Your task to perform on an android device: View the shopping cart on walmart.com. Add "razer huntsman" to the cart on walmart.com, then select checkout. Image 0: 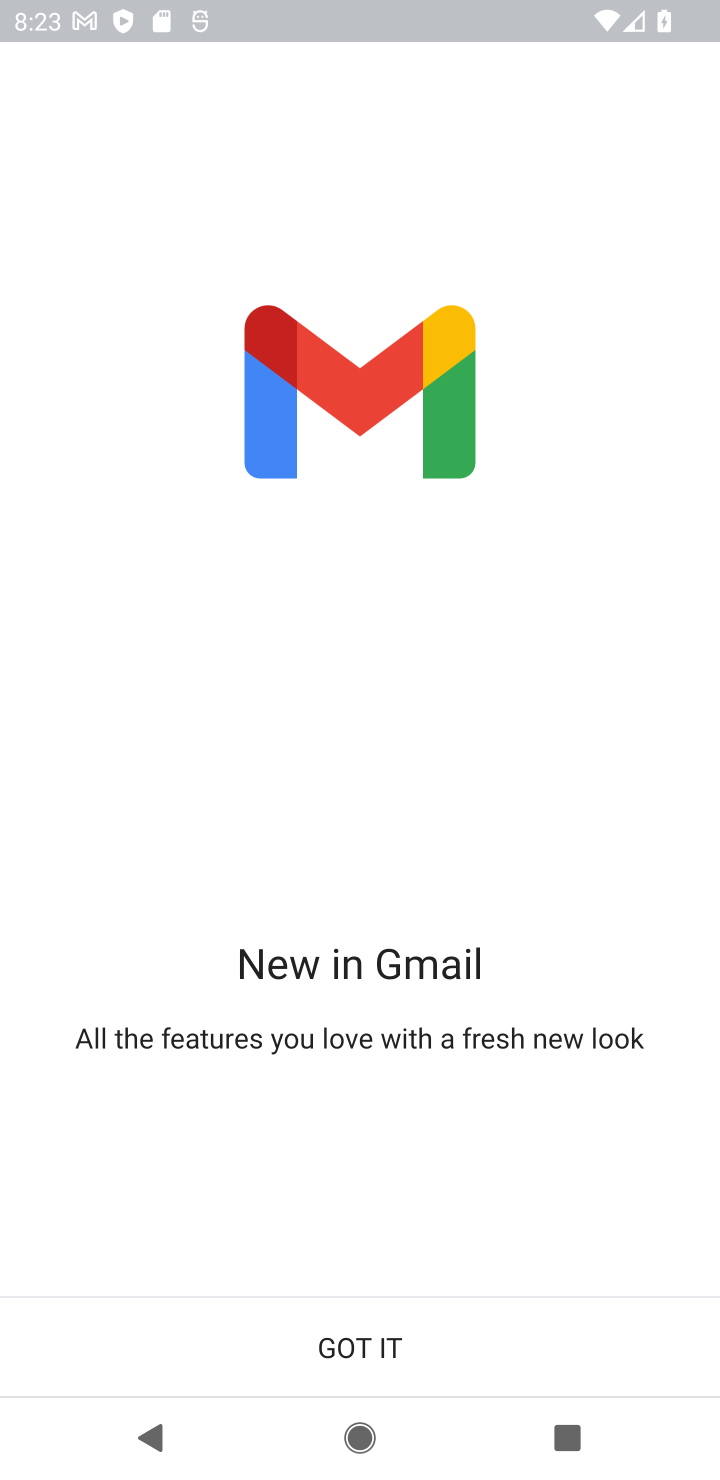
Step 0: task complete